Your task to perform on an android device: turn on priority inbox in the gmail app Image 0: 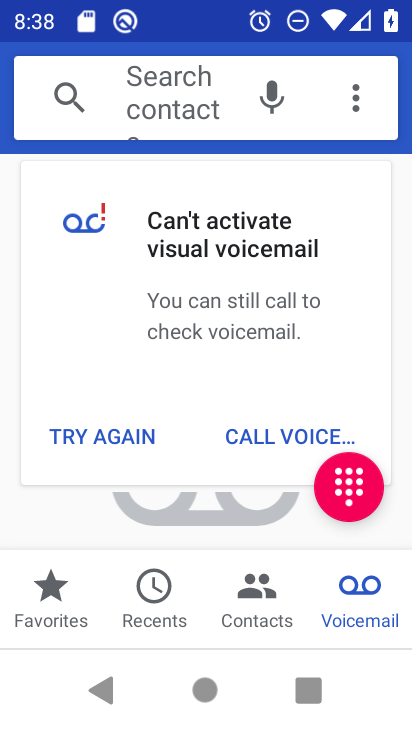
Step 0: press home button
Your task to perform on an android device: turn on priority inbox in the gmail app Image 1: 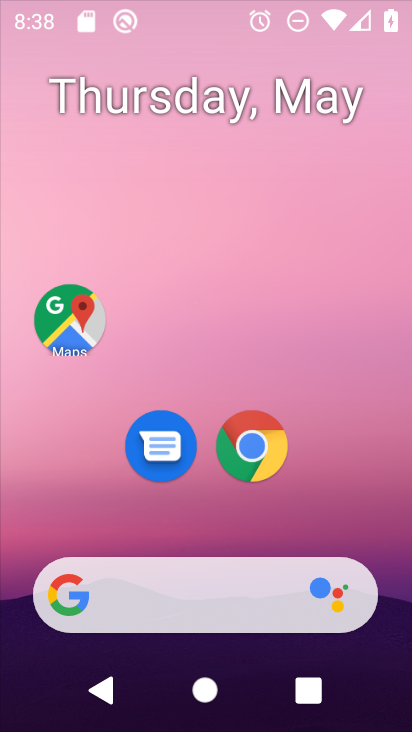
Step 1: drag from (341, 503) to (313, 154)
Your task to perform on an android device: turn on priority inbox in the gmail app Image 2: 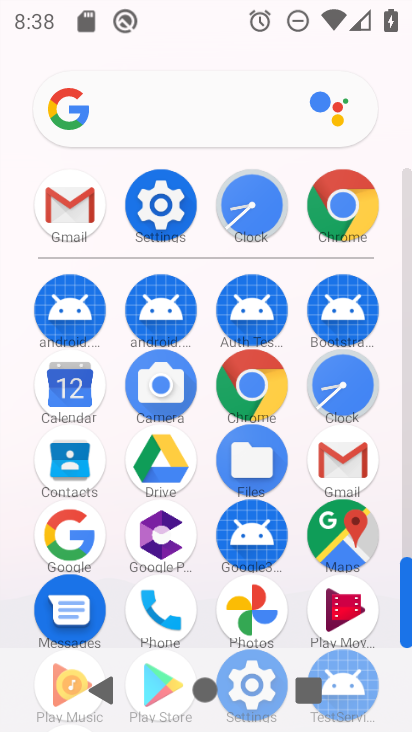
Step 2: click (341, 474)
Your task to perform on an android device: turn on priority inbox in the gmail app Image 3: 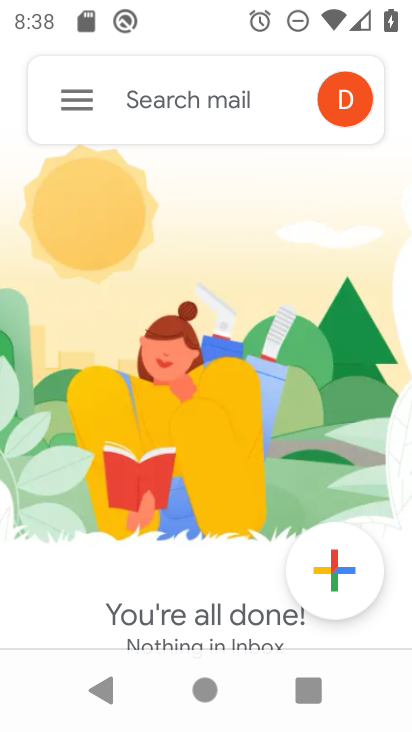
Step 3: click (80, 93)
Your task to perform on an android device: turn on priority inbox in the gmail app Image 4: 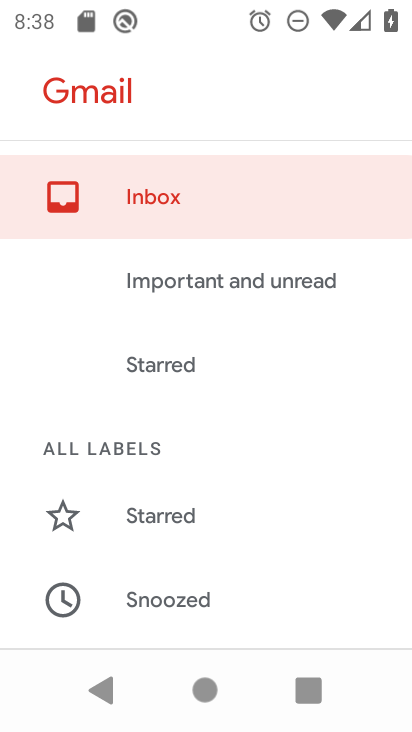
Step 4: drag from (224, 561) to (236, 193)
Your task to perform on an android device: turn on priority inbox in the gmail app Image 5: 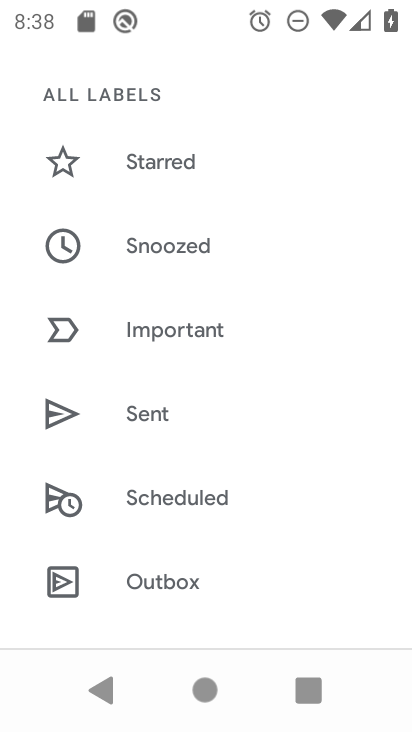
Step 5: drag from (282, 585) to (266, 175)
Your task to perform on an android device: turn on priority inbox in the gmail app Image 6: 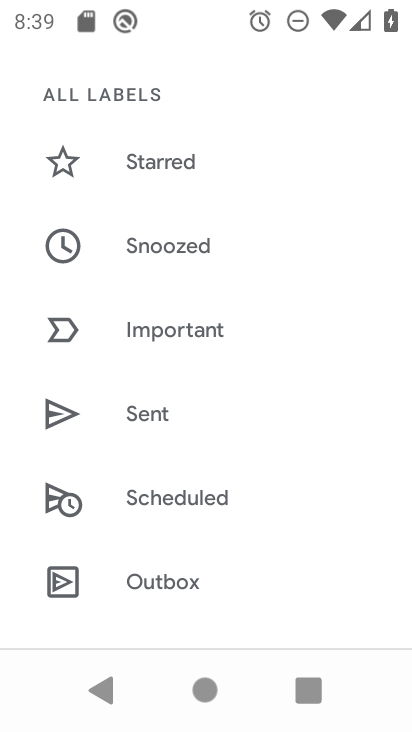
Step 6: drag from (144, 522) to (219, 114)
Your task to perform on an android device: turn on priority inbox in the gmail app Image 7: 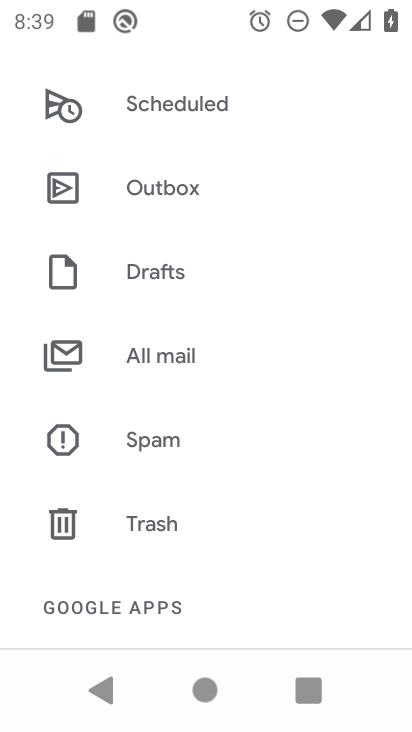
Step 7: drag from (198, 508) to (250, 117)
Your task to perform on an android device: turn on priority inbox in the gmail app Image 8: 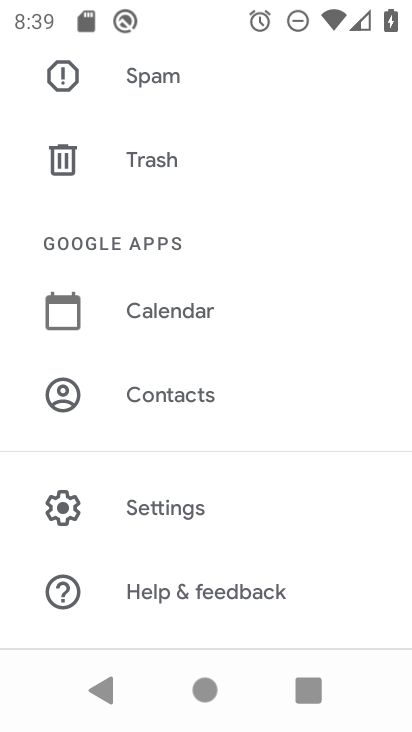
Step 8: click (179, 519)
Your task to perform on an android device: turn on priority inbox in the gmail app Image 9: 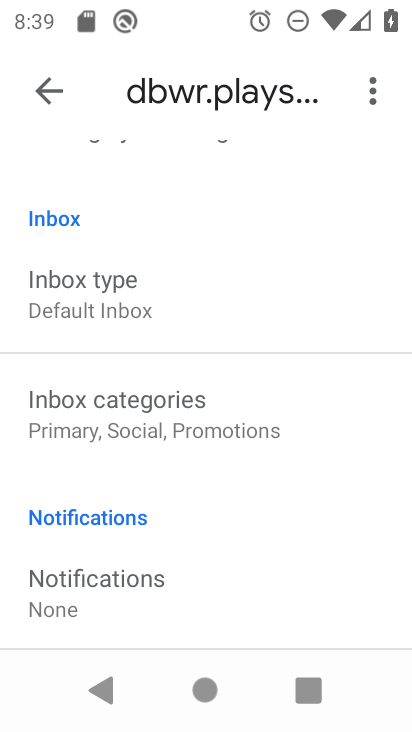
Step 9: click (97, 274)
Your task to perform on an android device: turn on priority inbox in the gmail app Image 10: 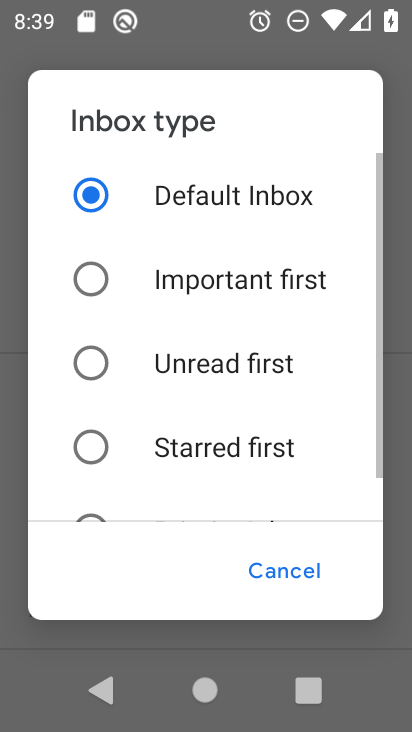
Step 10: drag from (159, 464) to (142, 167)
Your task to perform on an android device: turn on priority inbox in the gmail app Image 11: 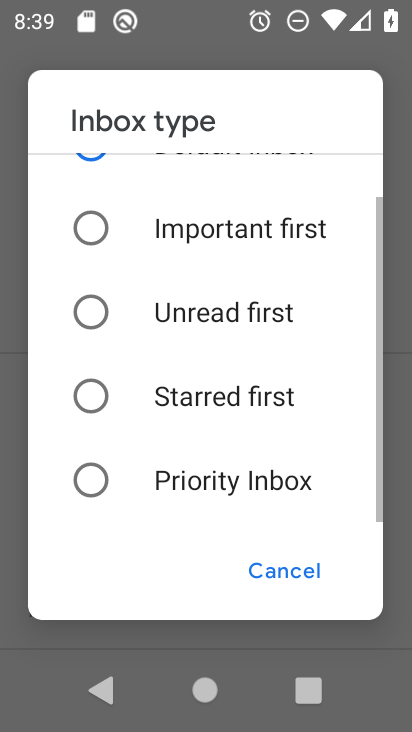
Step 11: click (80, 492)
Your task to perform on an android device: turn on priority inbox in the gmail app Image 12: 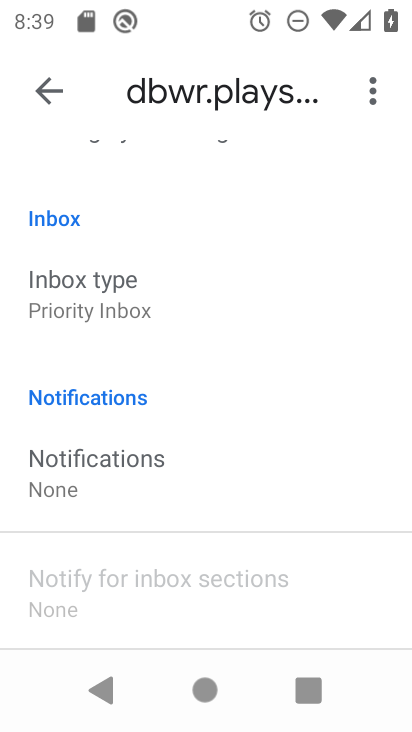
Step 12: task complete